Your task to perform on an android device: turn off priority inbox in the gmail app Image 0: 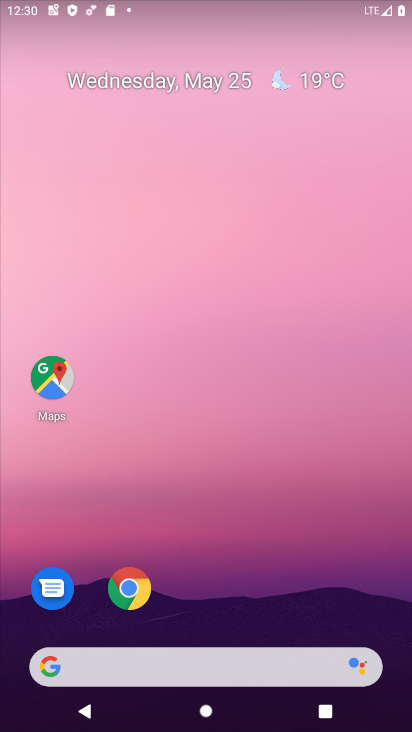
Step 0: drag from (189, 635) to (269, 156)
Your task to perform on an android device: turn off priority inbox in the gmail app Image 1: 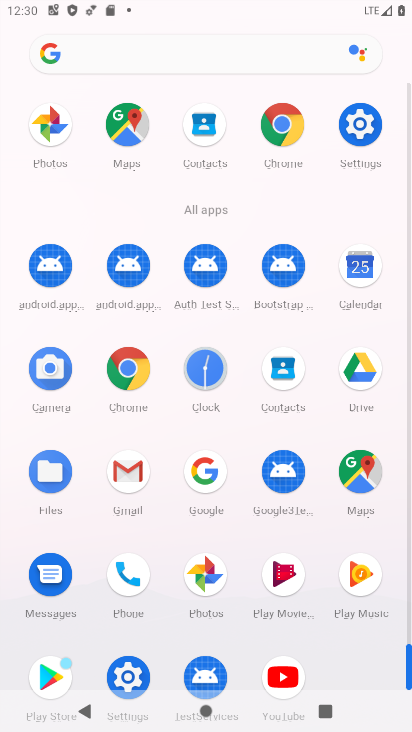
Step 1: click (130, 474)
Your task to perform on an android device: turn off priority inbox in the gmail app Image 2: 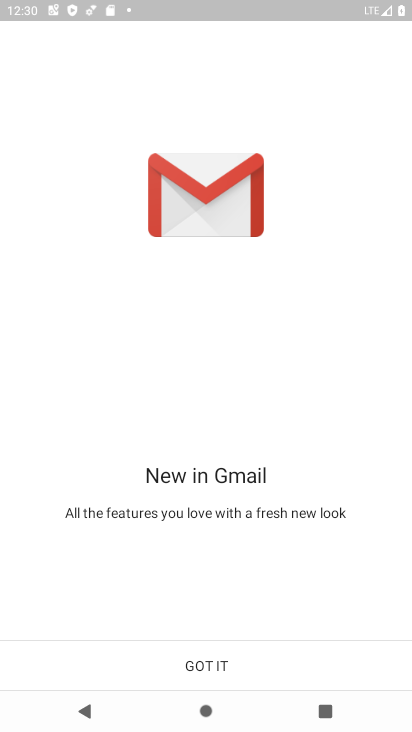
Step 2: click (216, 675)
Your task to perform on an android device: turn off priority inbox in the gmail app Image 3: 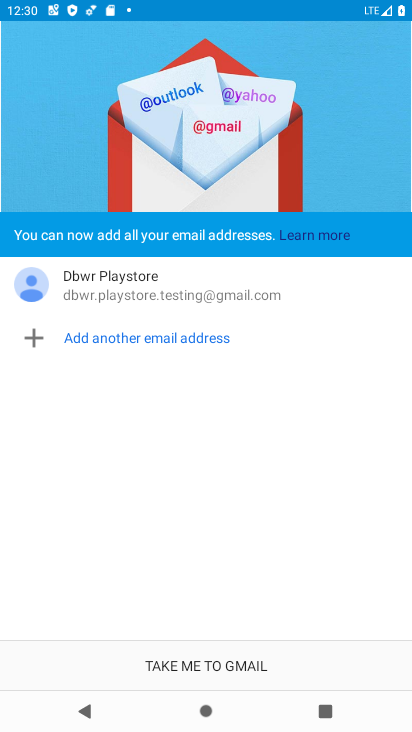
Step 3: click (216, 675)
Your task to perform on an android device: turn off priority inbox in the gmail app Image 4: 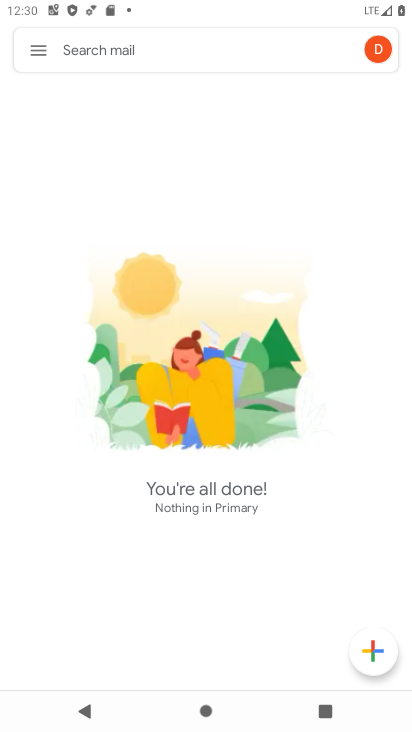
Step 4: click (38, 61)
Your task to perform on an android device: turn off priority inbox in the gmail app Image 5: 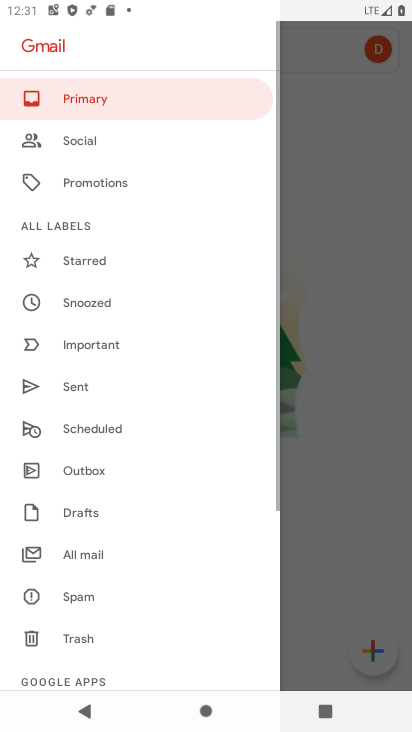
Step 5: drag from (82, 580) to (141, 278)
Your task to perform on an android device: turn off priority inbox in the gmail app Image 6: 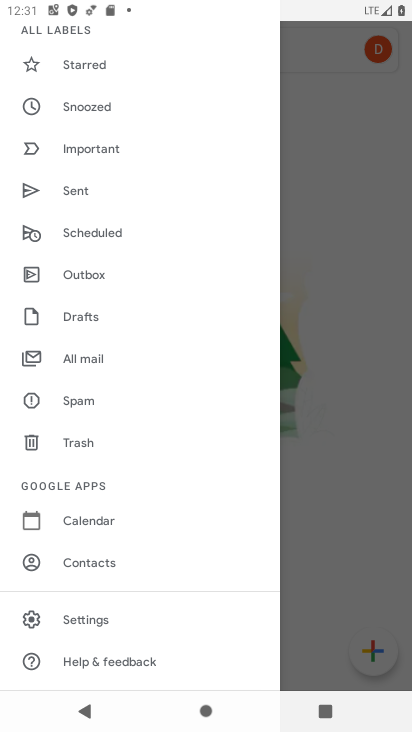
Step 6: click (97, 623)
Your task to perform on an android device: turn off priority inbox in the gmail app Image 7: 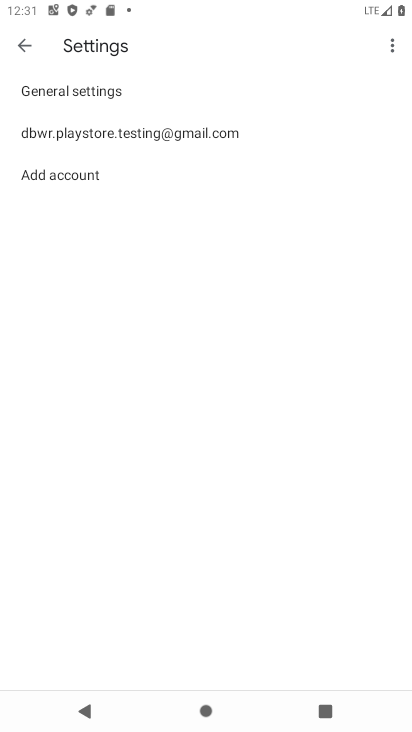
Step 7: click (230, 134)
Your task to perform on an android device: turn off priority inbox in the gmail app Image 8: 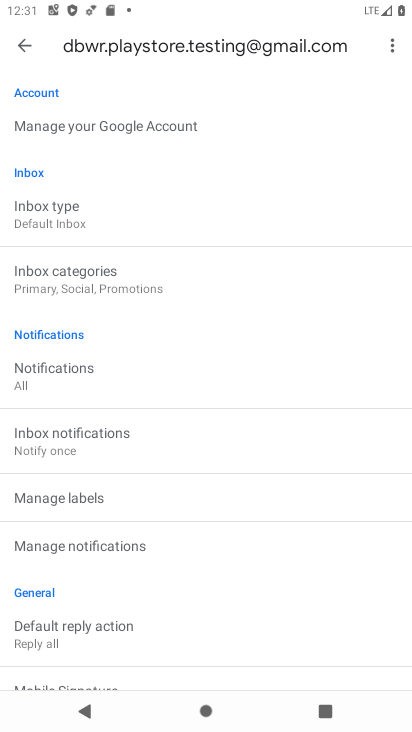
Step 8: click (91, 235)
Your task to perform on an android device: turn off priority inbox in the gmail app Image 9: 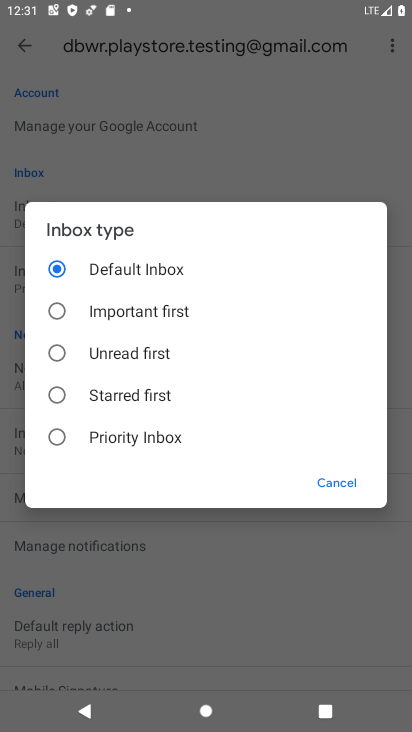
Step 9: task complete